Your task to perform on an android device: Show me popular games on the Play Store Image 0: 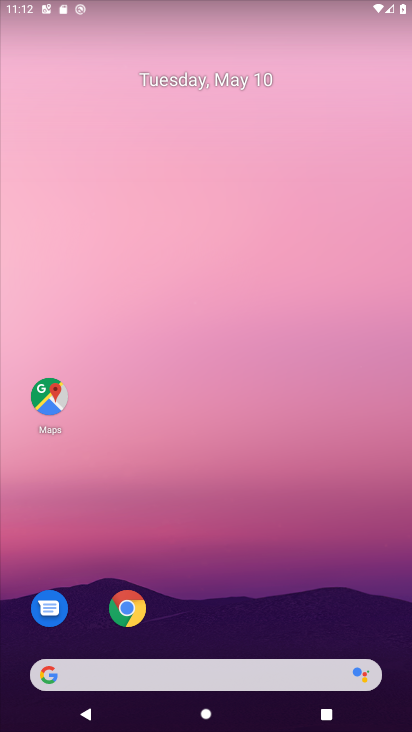
Step 0: drag from (199, 666) to (255, 2)
Your task to perform on an android device: Show me popular games on the Play Store Image 1: 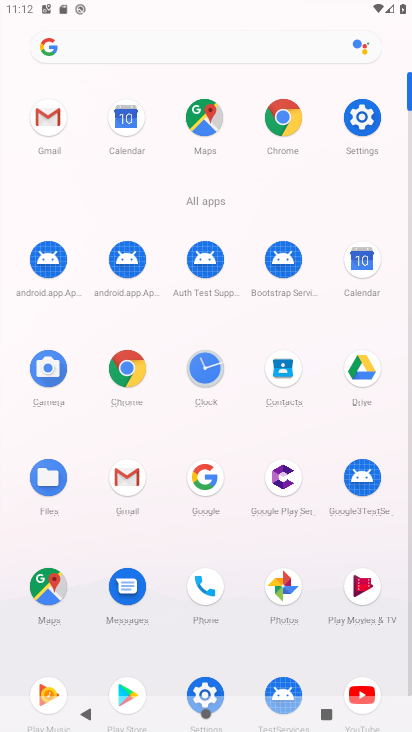
Step 1: click (126, 680)
Your task to perform on an android device: Show me popular games on the Play Store Image 2: 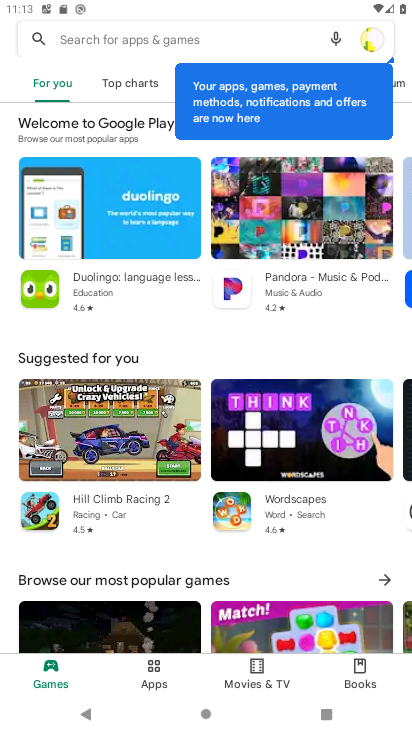
Step 2: click (384, 579)
Your task to perform on an android device: Show me popular games on the Play Store Image 3: 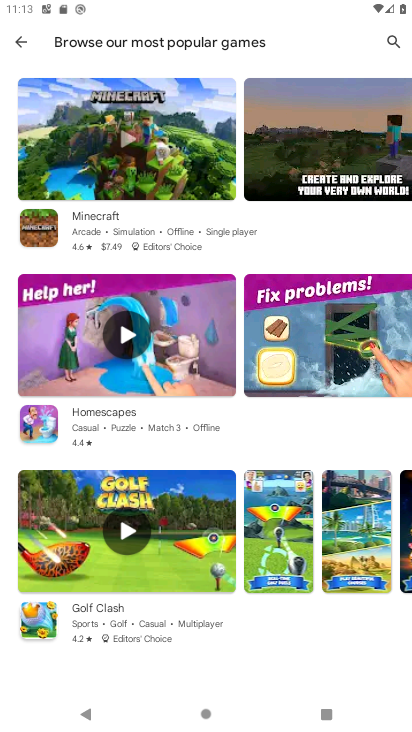
Step 3: task complete